Your task to perform on an android device: change notification settings in the gmail app Image 0: 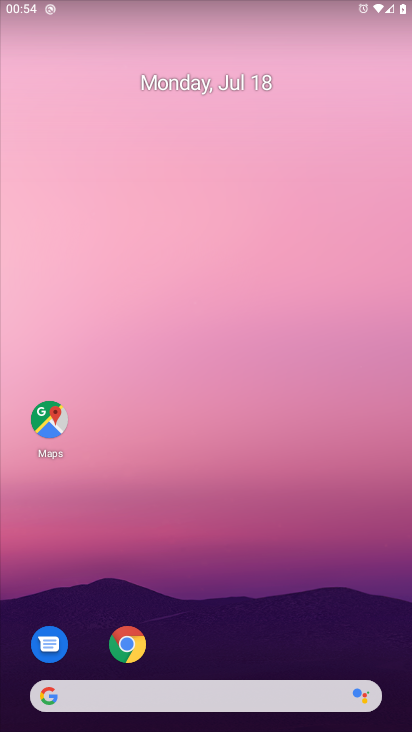
Step 0: press home button
Your task to perform on an android device: change notification settings in the gmail app Image 1: 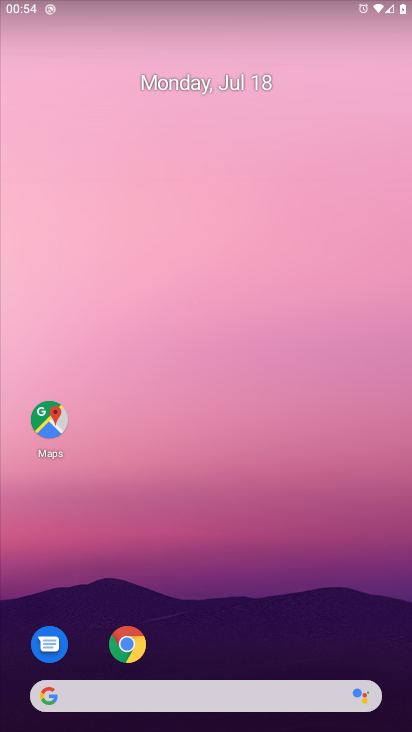
Step 1: drag from (264, 622) to (281, 107)
Your task to perform on an android device: change notification settings in the gmail app Image 2: 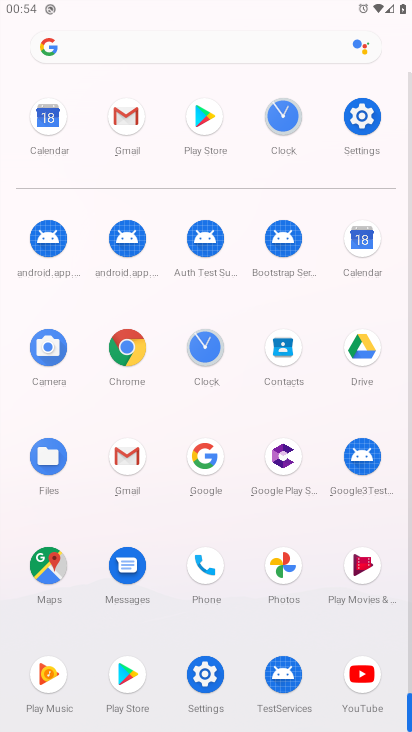
Step 2: click (122, 120)
Your task to perform on an android device: change notification settings in the gmail app Image 3: 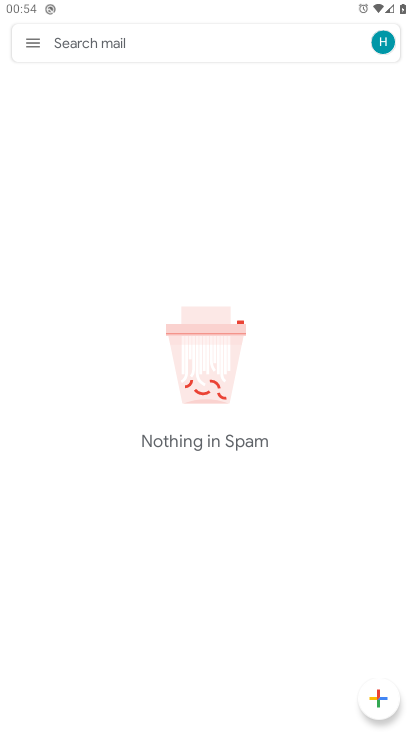
Step 3: click (35, 42)
Your task to perform on an android device: change notification settings in the gmail app Image 4: 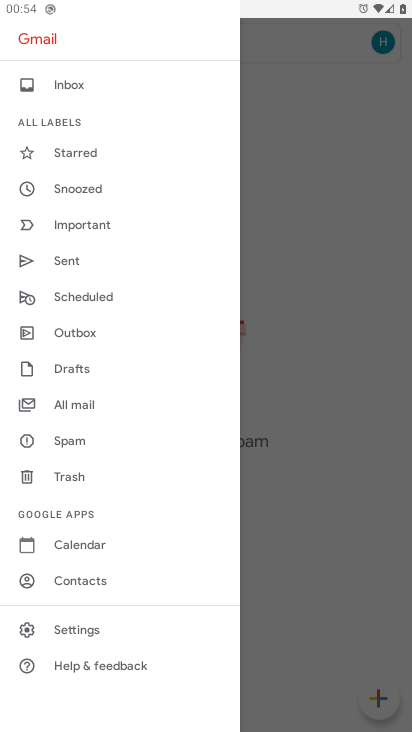
Step 4: click (73, 625)
Your task to perform on an android device: change notification settings in the gmail app Image 5: 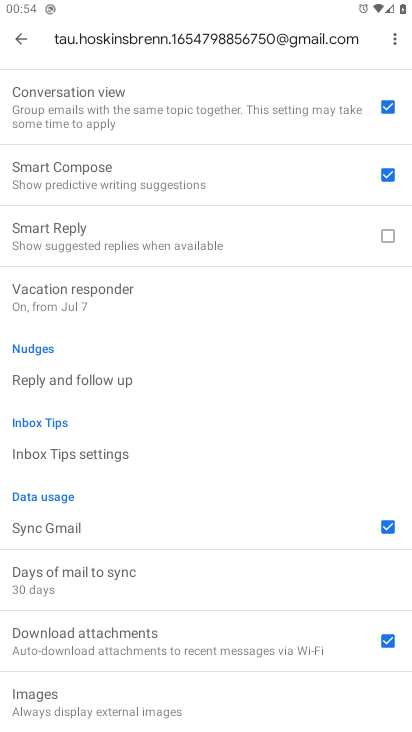
Step 5: drag from (215, 555) to (255, 230)
Your task to perform on an android device: change notification settings in the gmail app Image 6: 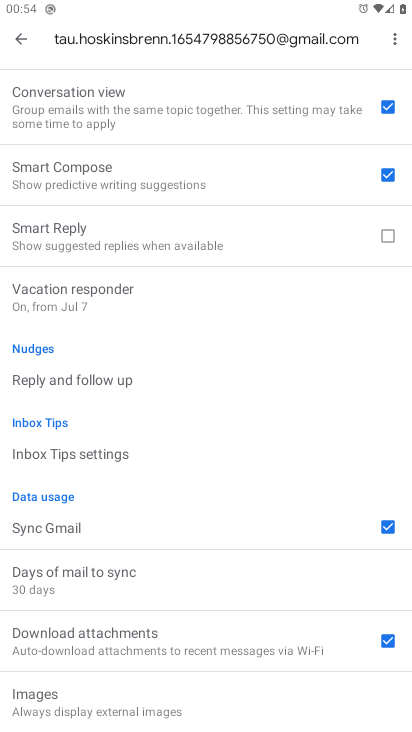
Step 6: drag from (226, 152) to (215, 705)
Your task to perform on an android device: change notification settings in the gmail app Image 7: 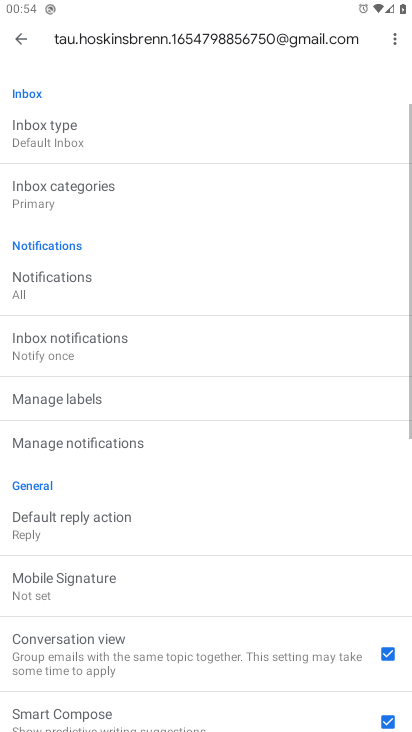
Step 7: drag from (250, 191) to (243, 461)
Your task to perform on an android device: change notification settings in the gmail app Image 8: 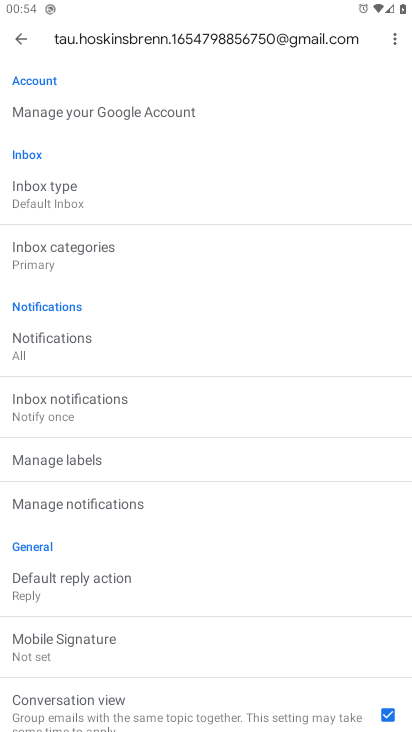
Step 8: click (58, 502)
Your task to perform on an android device: change notification settings in the gmail app Image 9: 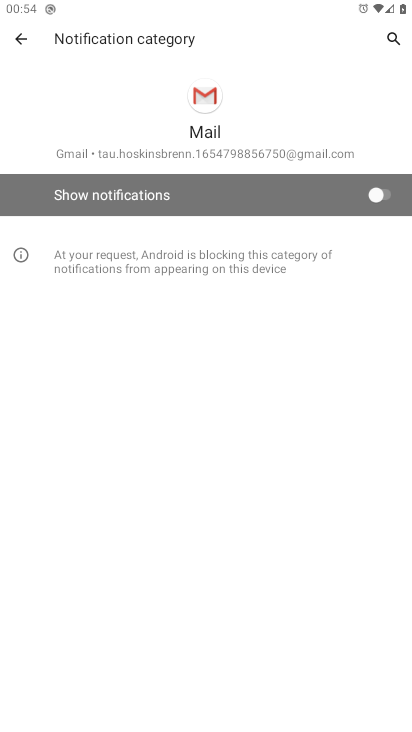
Step 9: click (381, 191)
Your task to perform on an android device: change notification settings in the gmail app Image 10: 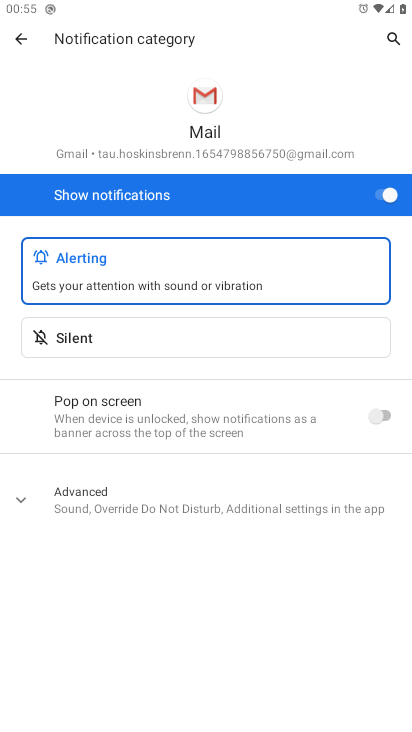
Step 10: task complete